Your task to perform on an android device: Open Google Image 0: 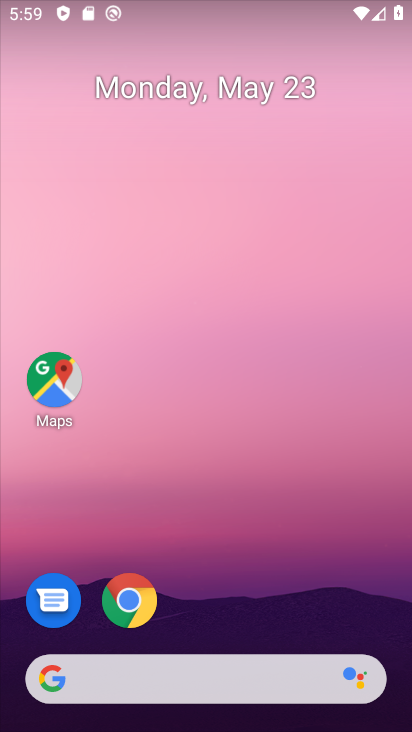
Step 0: click (237, 204)
Your task to perform on an android device: Open Google Image 1: 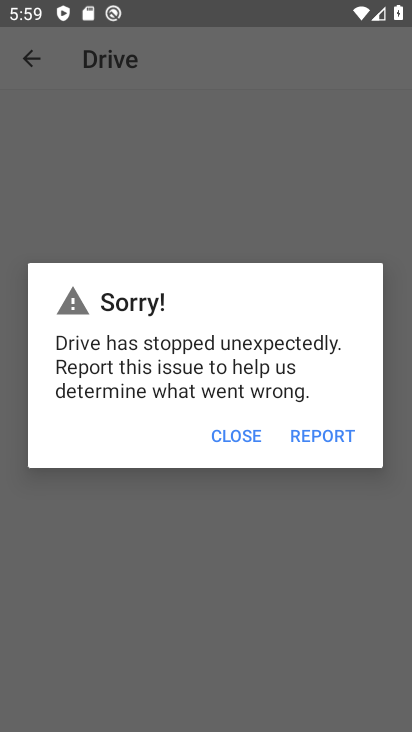
Step 1: press home button
Your task to perform on an android device: Open Google Image 2: 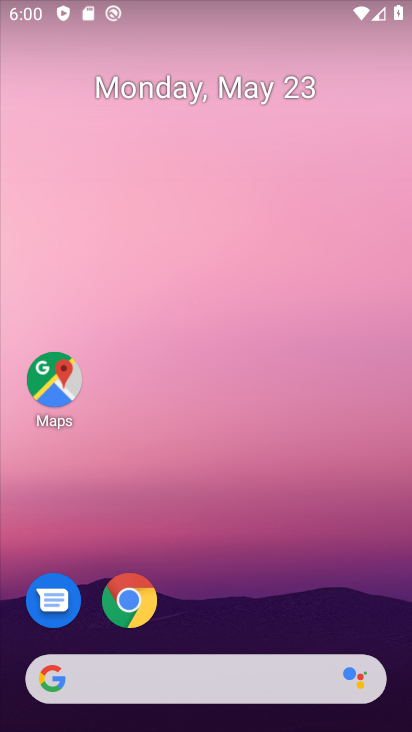
Step 2: drag from (253, 606) to (245, 310)
Your task to perform on an android device: Open Google Image 3: 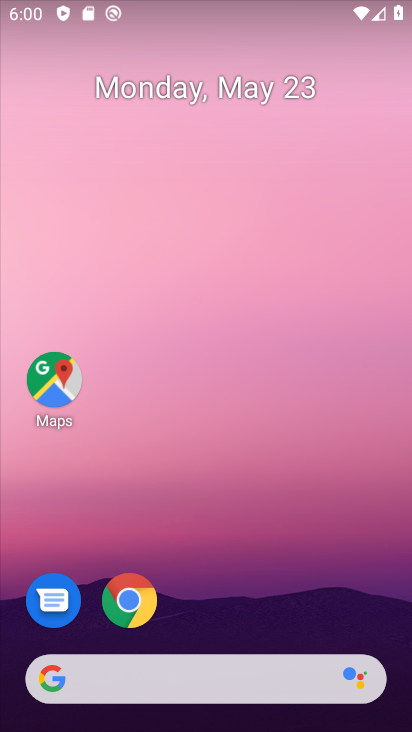
Step 3: drag from (220, 635) to (222, 97)
Your task to perform on an android device: Open Google Image 4: 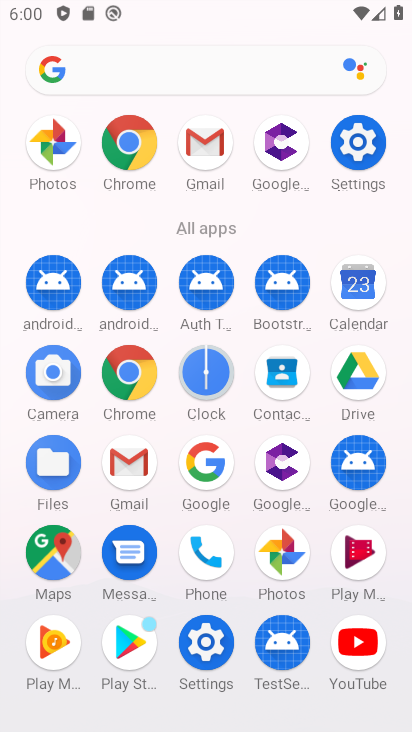
Step 4: click (206, 484)
Your task to perform on an android device: Open Google Image 5: 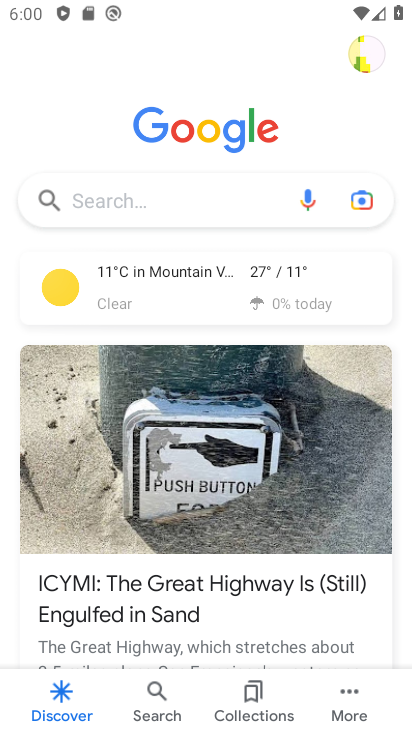
Step 5: task complete